Your task to perform on an android device: Go to CNN.com Image 0: 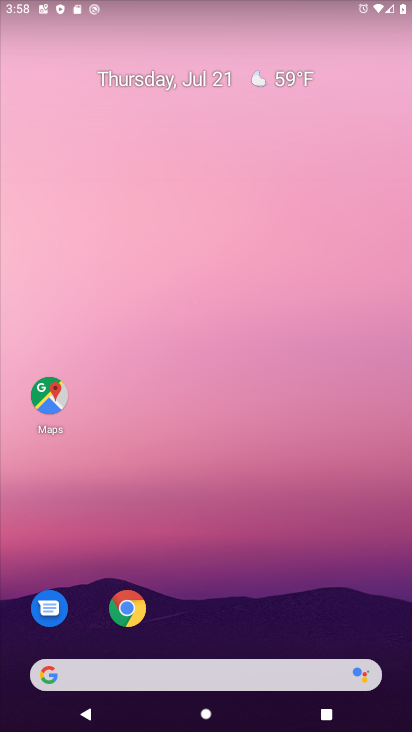
Step 0: drag from (282, 671) to (333, 136)
Your task to perform on an android device: Go to CNN.com Image 1: 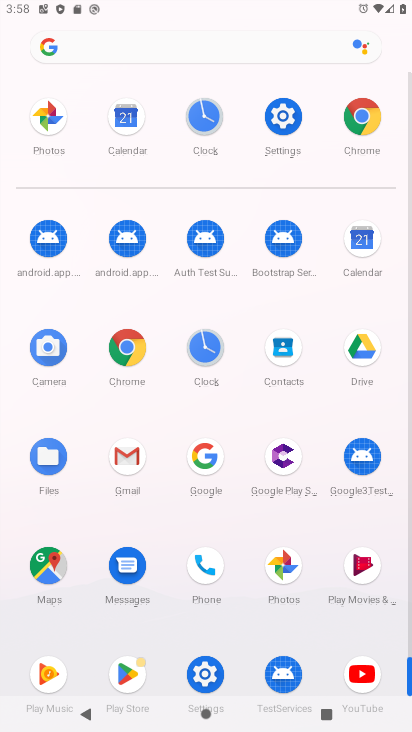
Step 1: click (137, 347)
Your task to perform on an android device: Go to CNN.com Image 2: 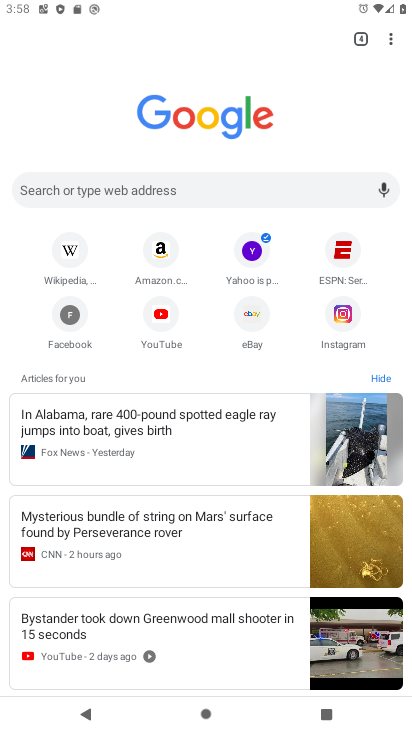
Step 2: click (250, 193)
Your task to perform on an android device: Go to CNN.com Image 3: 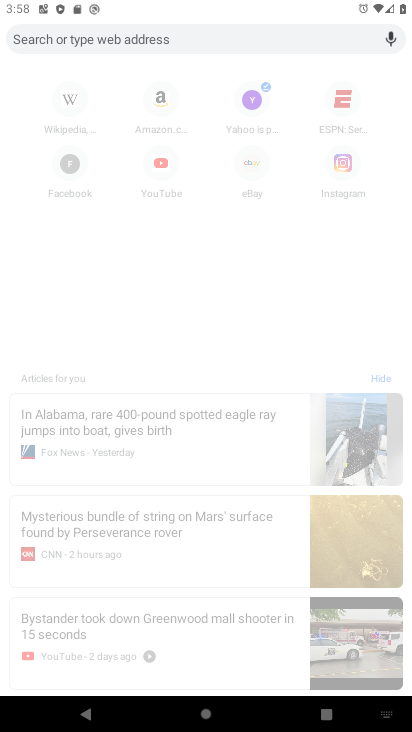
Step 3: type "cnn.com"
Your task to perform on an android device: Go to CNN.com Image 4: 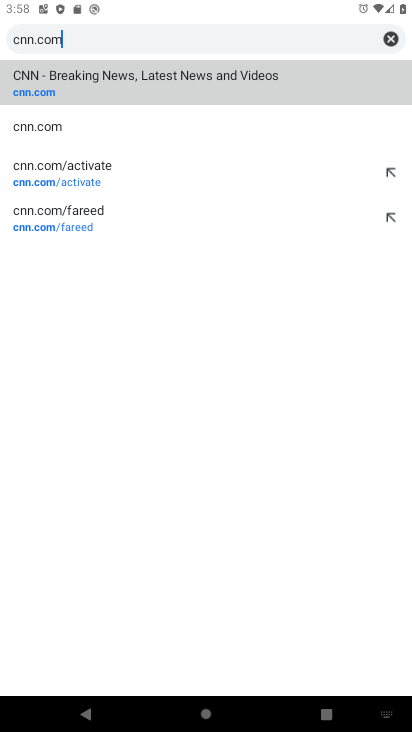
Step 4: click (228, 74)
Your task to perform on an android device: Go to CNN.com Image 5: 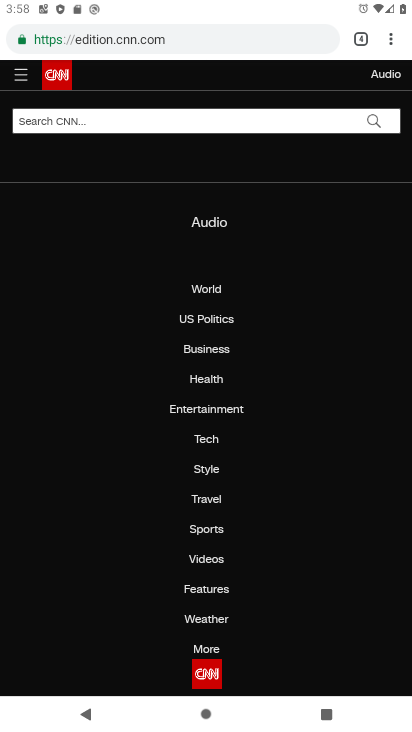
Step 5: task complete